Your task to perform on an android device: check google app version Image 0: 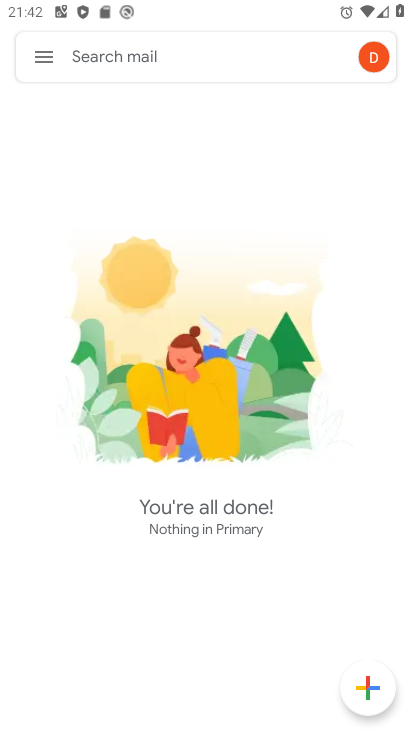
Step 0: press home button
Your task to perform on an android device: check google app version Image 1: 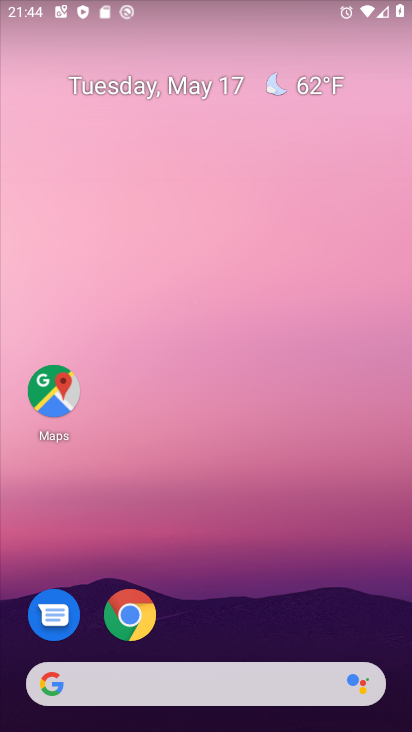
Step 1: drag from (243, 624) to (118, 16)
Your task to perform on an android device: check google app version Image 2: 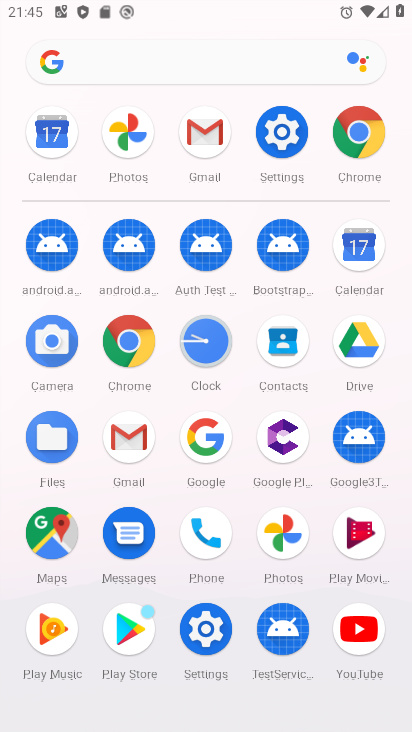
Step 2: click (200, 436)
Your task to perform on an android device: check google app version Image 3: 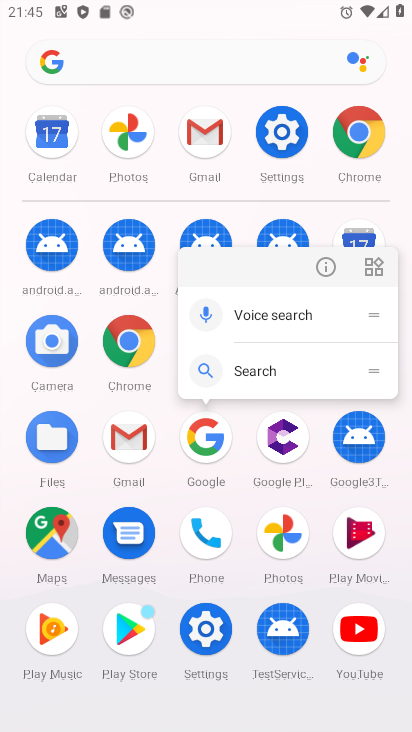
Step 3: click (320, 270)
Your task to perform on an android device: check google app version Image 4: 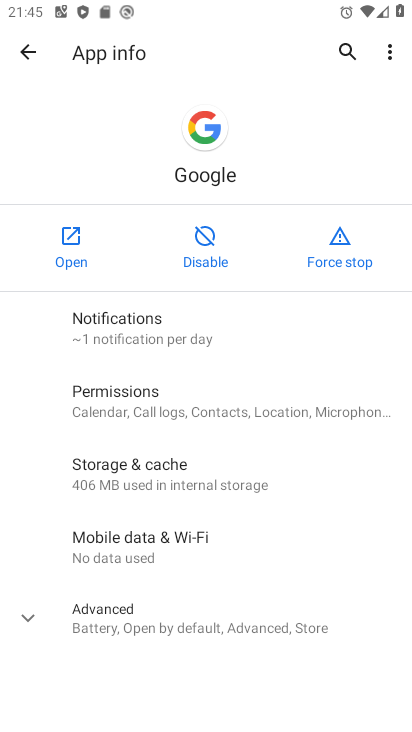
Step 4: click (89, 614)
Your task to perform on an android device: check google app version Image 5: 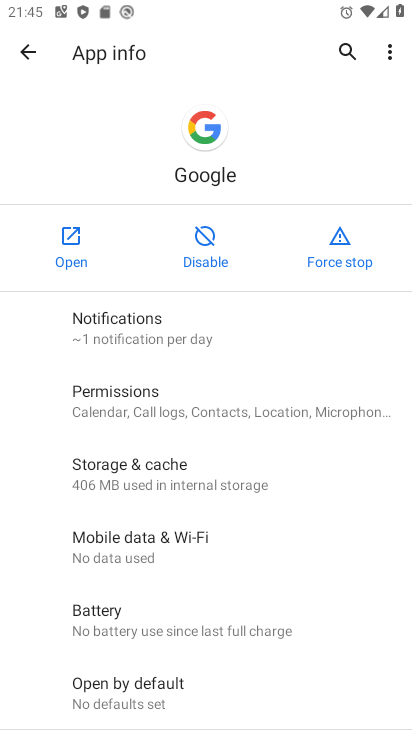
Step 5: task complete